Your task to perform on an android device: See recent photos Image 0: 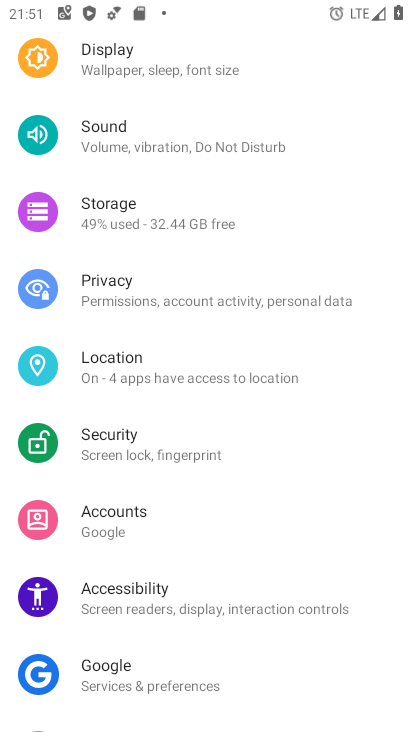
Step 0: press back button
Your task to perform on an android device: See recent photos Image 1: 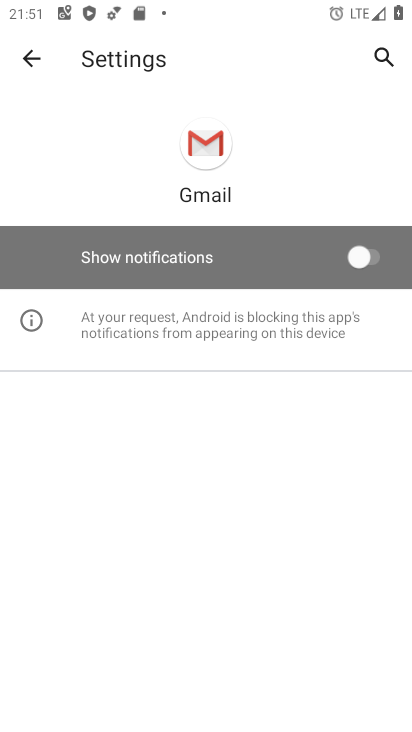
Step 1: press back button
Your task to perform on an android device: See recent photos Image 2: 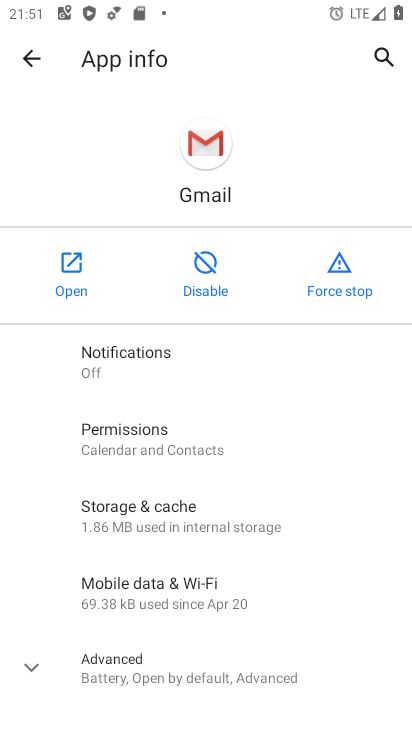
Step 2: press home button
Your task to perform on an android device: See recent photos Image 3: 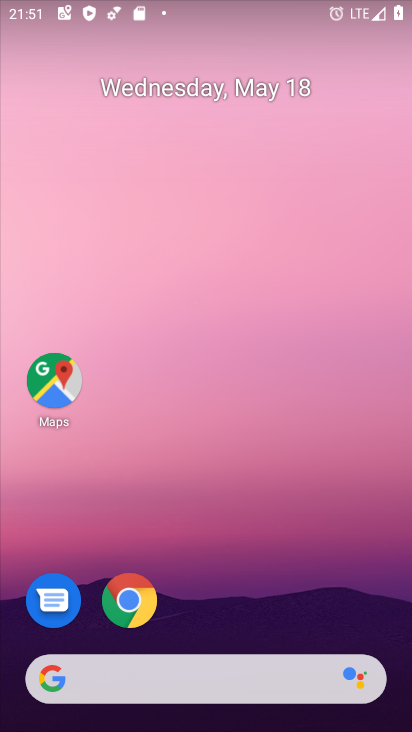
Step 3: drag from (200, 617) to (343, 95)
Your task to perform on an android device: See recent photos Image 4: 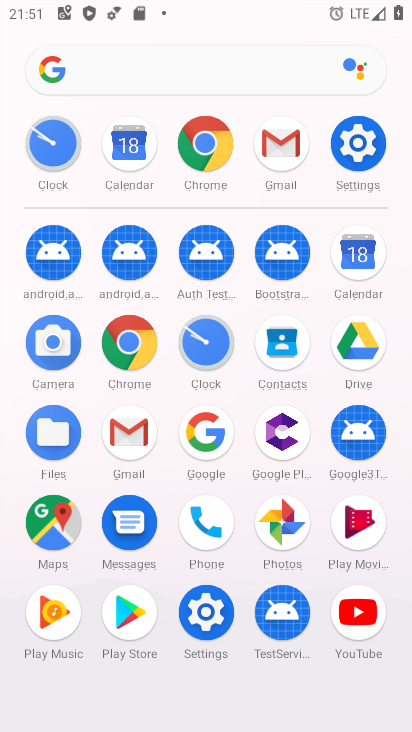
Step 4: click (288, 523)
Your task to perform on an android device: See recent photos Image 5: 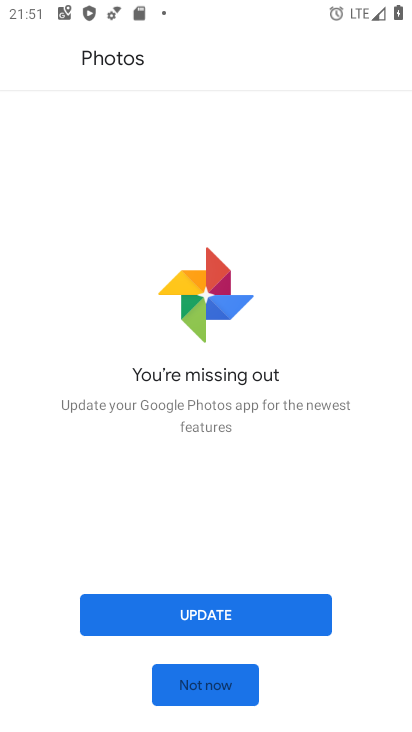
Step 5: click (182, 692)
Your task to perform on an android device: See recent photos Image 6: 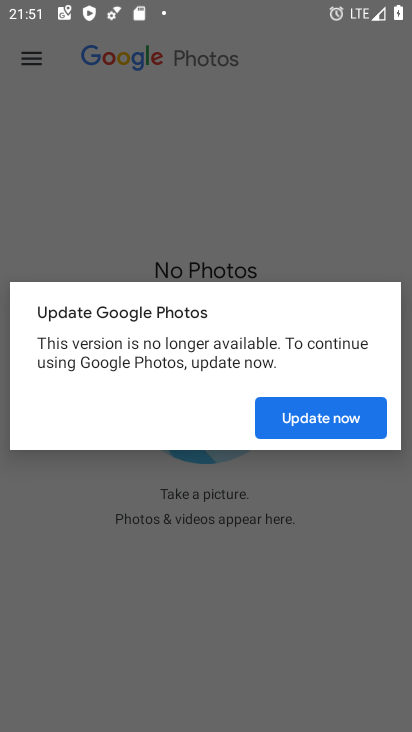
Step 6: click (286, 411)
Your task to perform on an android device: See recent photos Image 7: 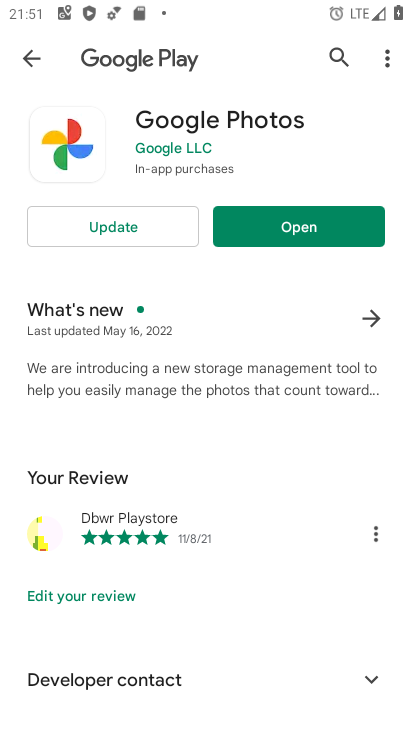
Step 7: click (327, 222)
Your task to perform on an android device: See recent photos Image 8: 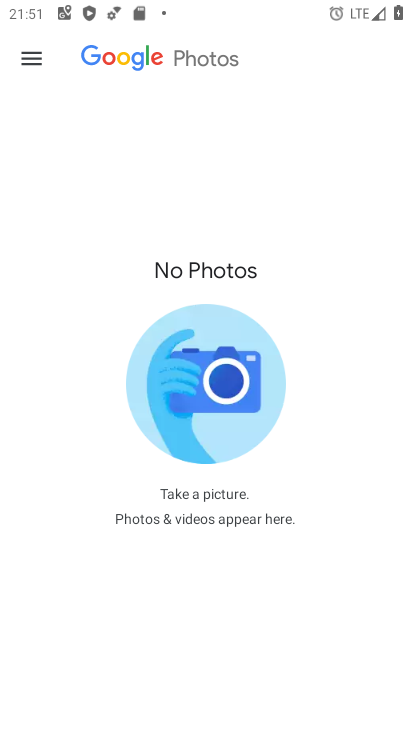
Step 8: task complete